Your task to perform on an android device: Set the phone to "Do not disturb". Image 0: 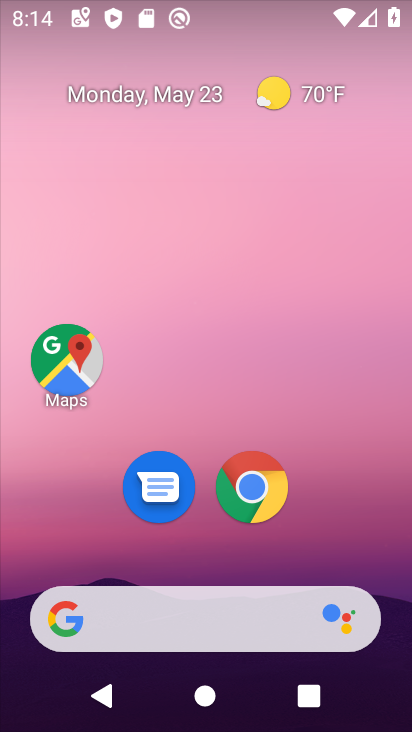
Step 0: drag from (244, 586) to (217, 81)
Your task to perform on an android device: Set the phone to "Do not disturb". Image 1: 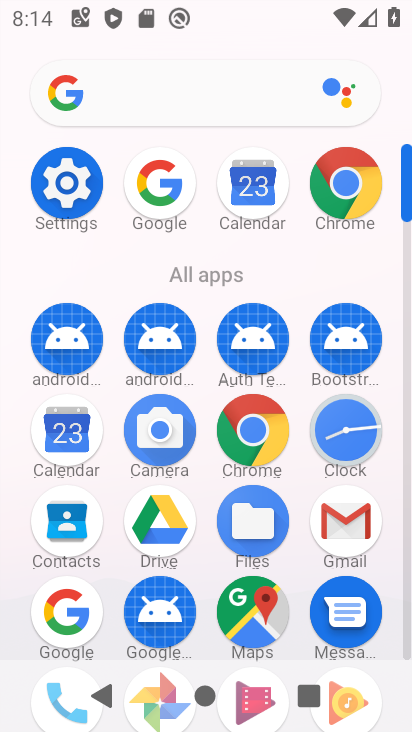
Step 1: click (63, 187)
Your task to perform on an android device: Set the phone to "Do not disturb". Image 2: 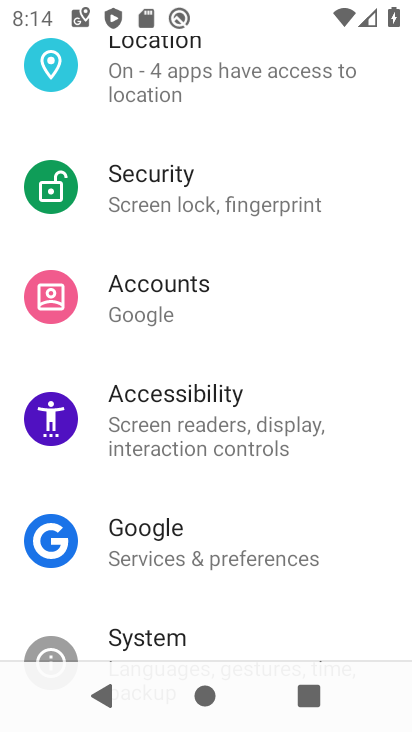
Step 2: drag from (262, 131) to (308, 169)
Your task to perform on an android device: Set the phone to "Do not disturb". Image 3: 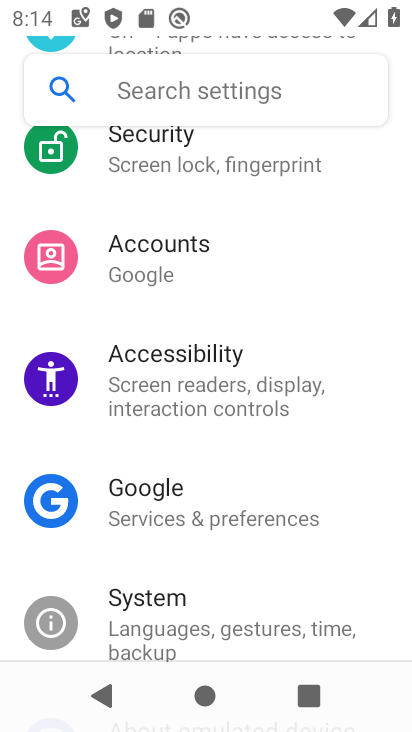
Step 3: drag from (308, 169) to (333, 587)
Your task to perform on an android device: Set the phone to "Do not disturb". Image 4: 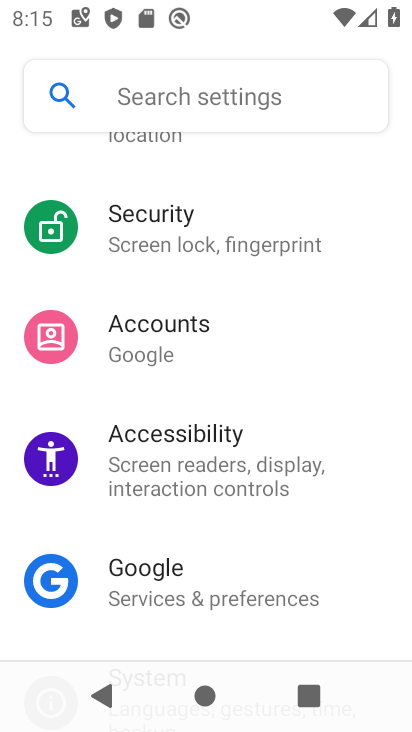
Step 4: drag from (303, 198) to (341, 593)
Your task to perform on an android device: Set the phone to "Do not disturb". Image 5: 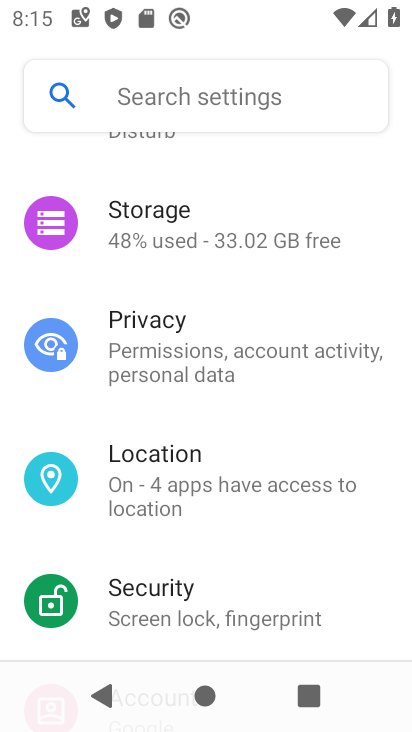
Step 5: drag from (320, 227) to (327, 548)
Your task to perform on an android device: Set the phone to "Do not disturb". Image 6: 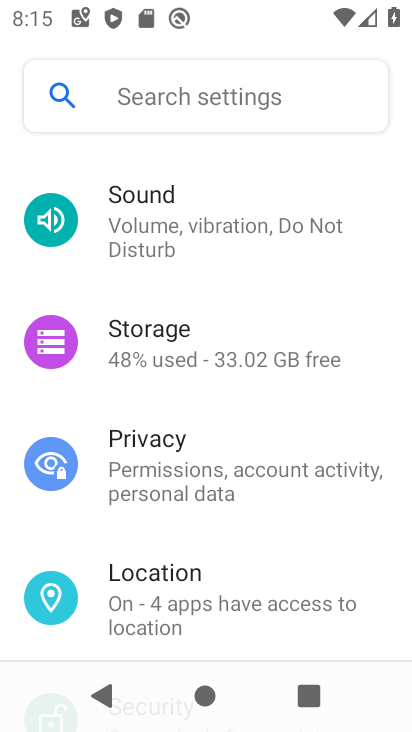
Step 6: click (308, 244)
Your task to perform on an android device: Set the phone to "Do not disturb". Image 7: 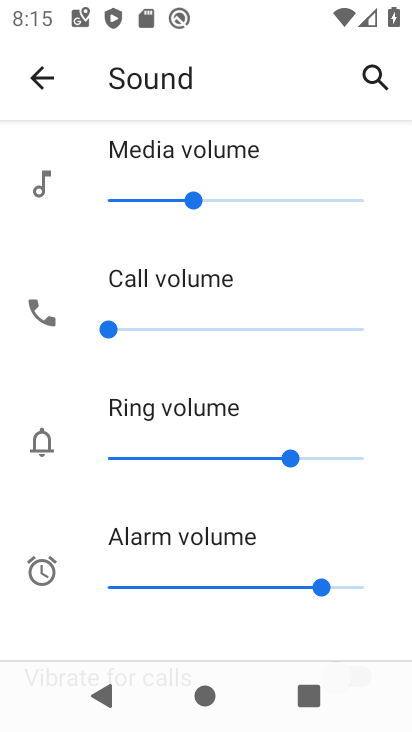
Step 7: drag from (239, 616) to (302, 99)
Your task to perform on an android device: Set the phone to "Do not disturb". Image 8: 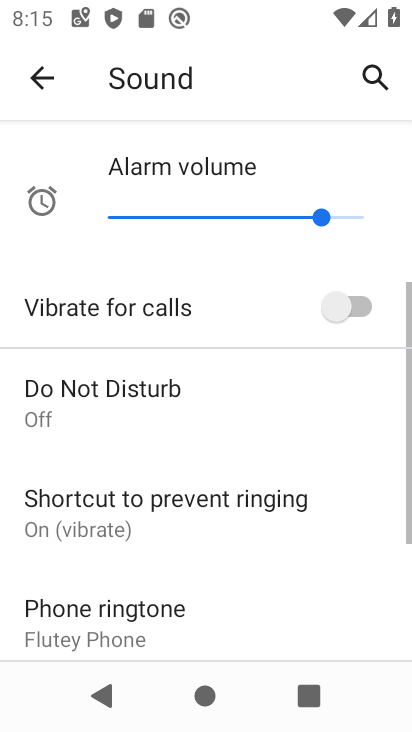
Step 8: drag from (194, 514) to (256, 192)
Your task to perform on an android device: Set the phone to "Do not disturb". Image 9: 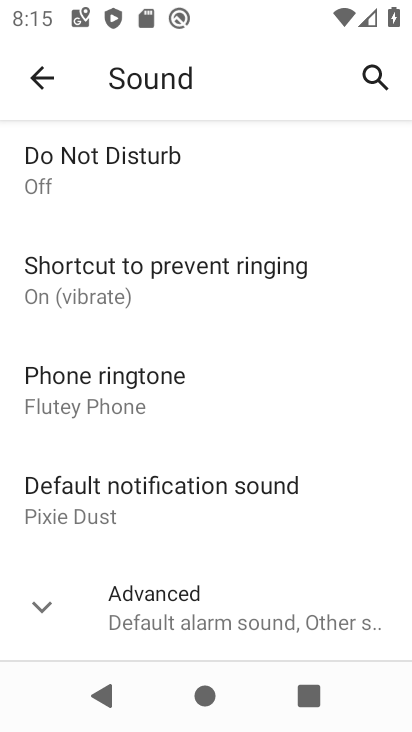
Step 9: click (170, 174)
Your task to perform on an android device: Set the phone to "Do not disturb". Image 10: 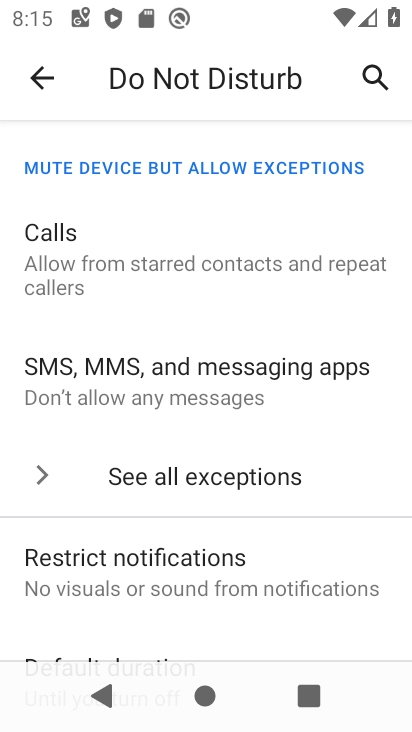
Step 10: drag from (182, 564) to (211, 269)
Your task to perform on an android device: Set the phone to "Do not disturb". Image 11: 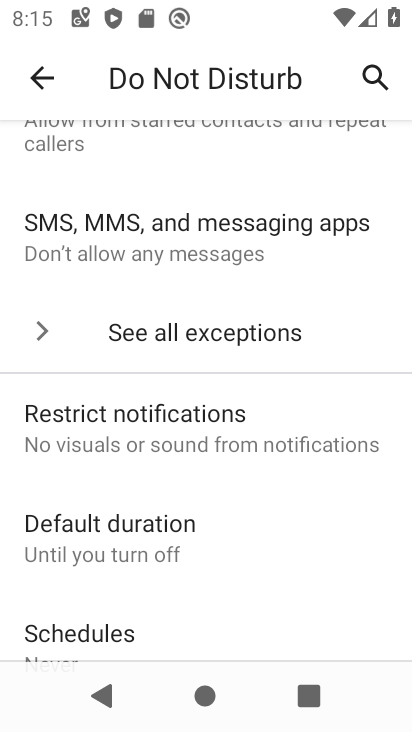
Step 11: drag from (181, 630) to (234, 217)
Your task to perform on an android device: Set the phone to "Do not disturb". Image 12: 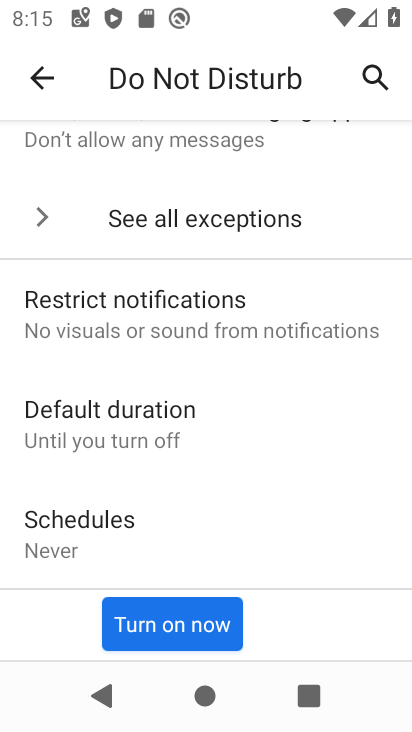
Step 12: click (220, 626)
Your task to perform on an android device: Set the phone to "Do not disturb". Image 13: 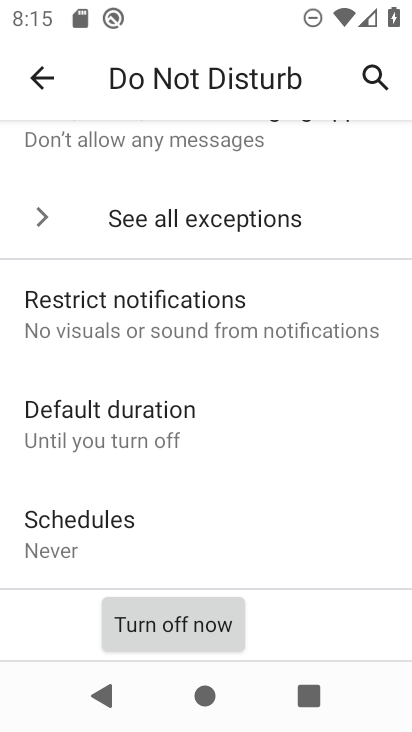
Step 13: task complete